Your task to perform on an android device: allow cookies in the chrome app Image 0: 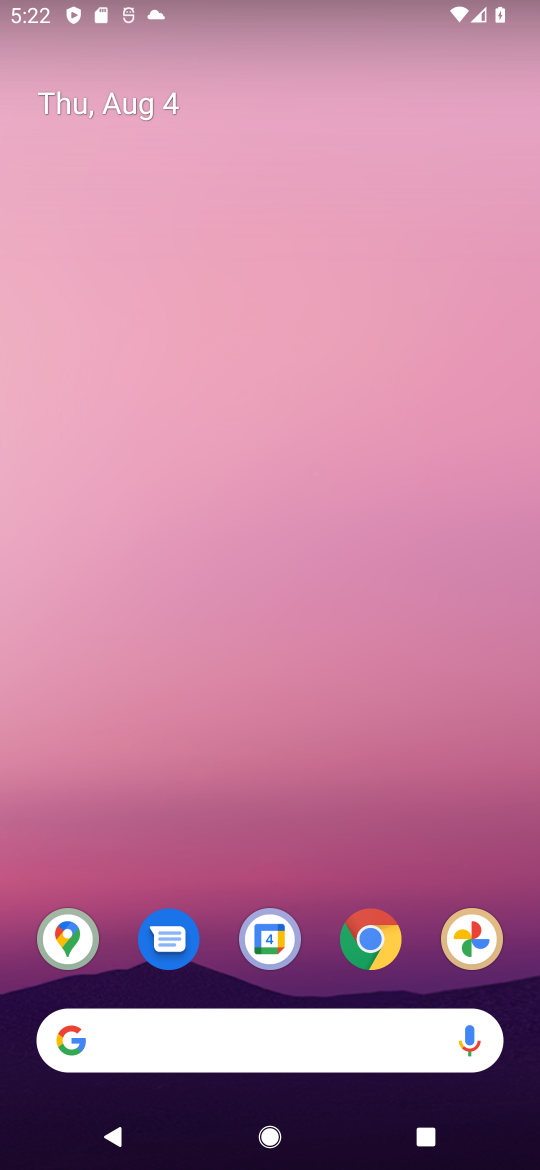
Step 0: click (370, 944)
Your task to perform on an android device: allow cookies in the chrome app Image 1: 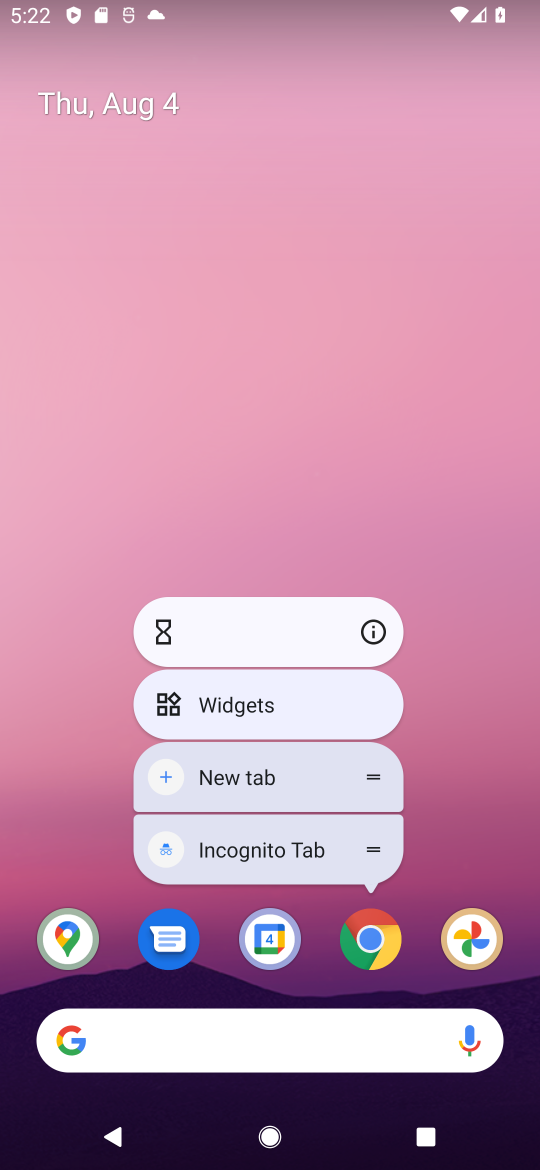
Step 1: click (370, 944)
Your task to perform on an android device: allow cookies in the chrome app Image 2: 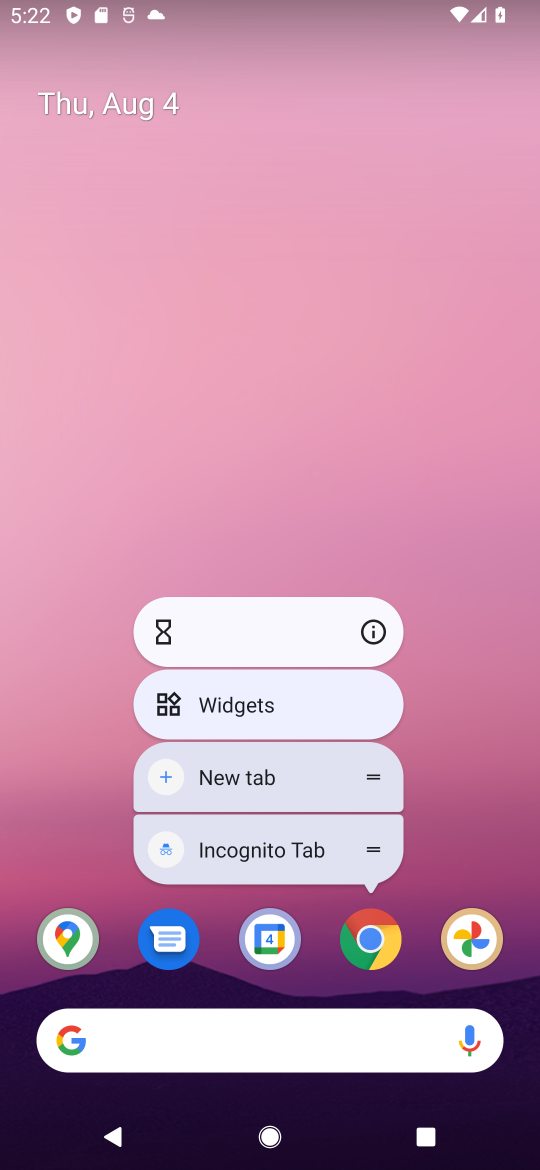
Step 2: click (379, 942)
Your task to perform on an android device: allow cookies in the chrome app Image 3: 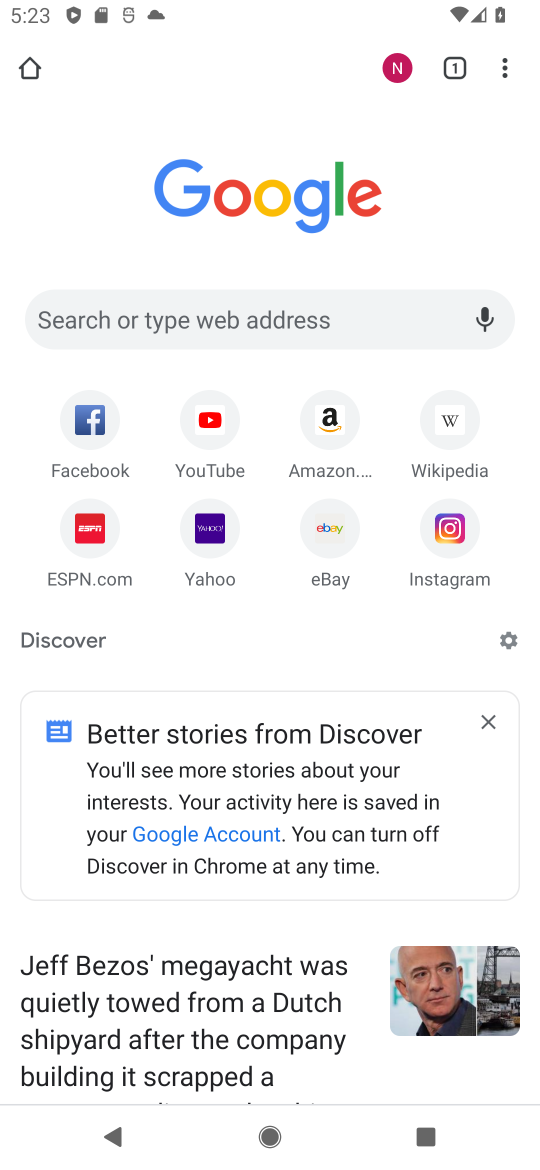
Step 3: click (506, 73)
Your task to perform on an android device: allow cookies in the chrome app Image 4: 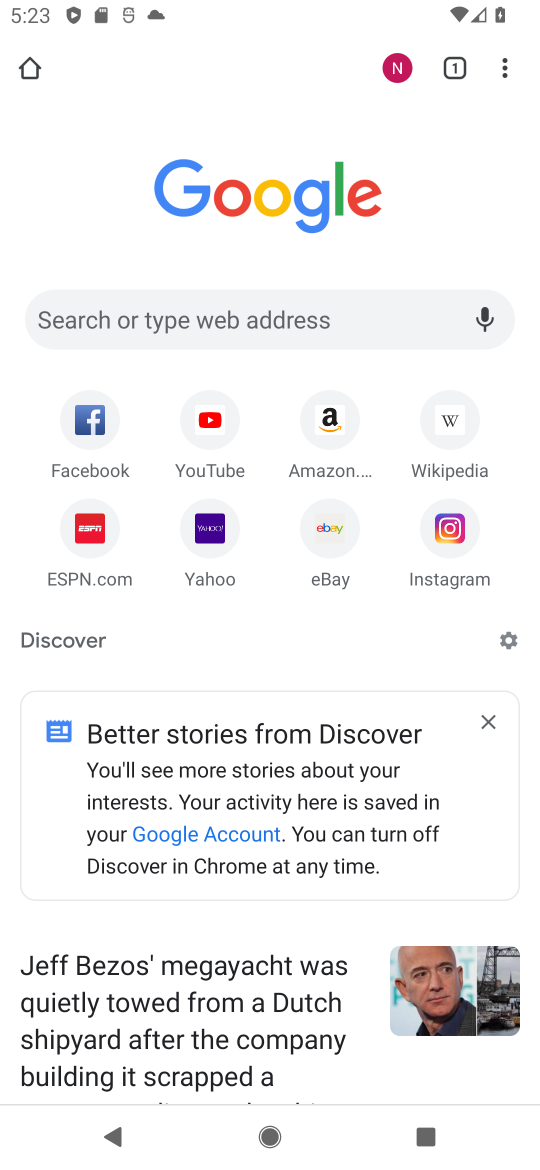
Step 4: click (499, 69)
Your task to perform on an android device: allow cookies in the chrome app Image 5: 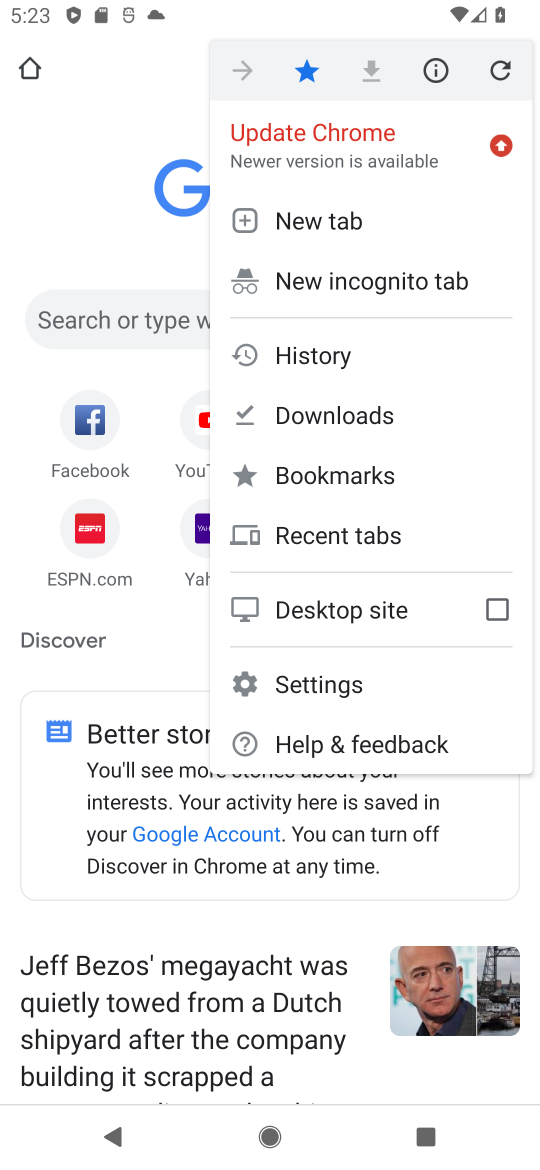
Step 5: click (331, 687)
Your task to perform on an android device: allow cookies in the chrome app Image 6: 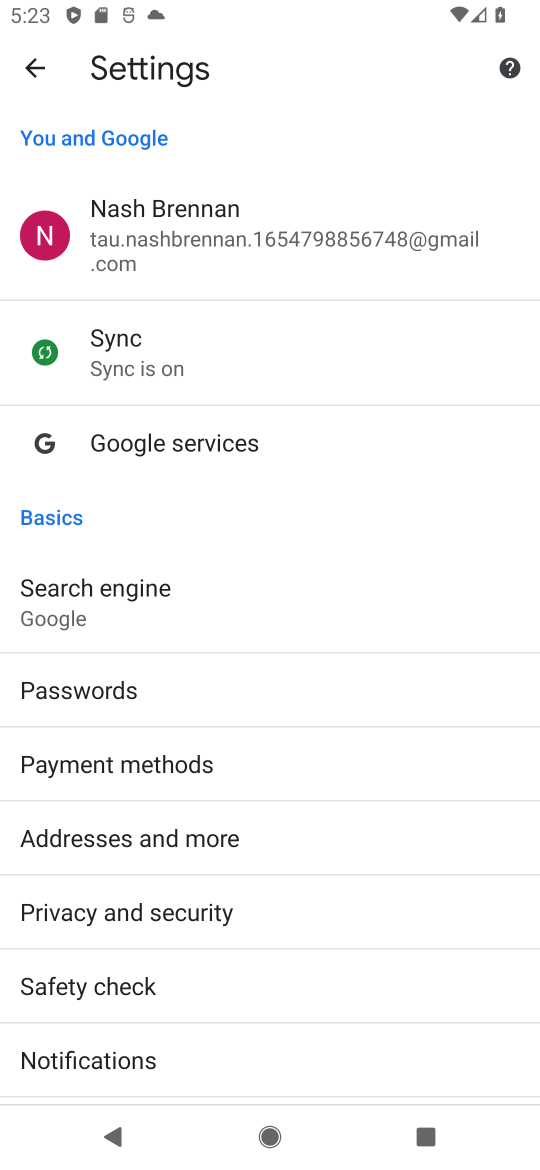
Step 6: drag from (136, 1078) to (184, 513)
Your task to perform on an android device: allow cookies in the chrome app Image 7: 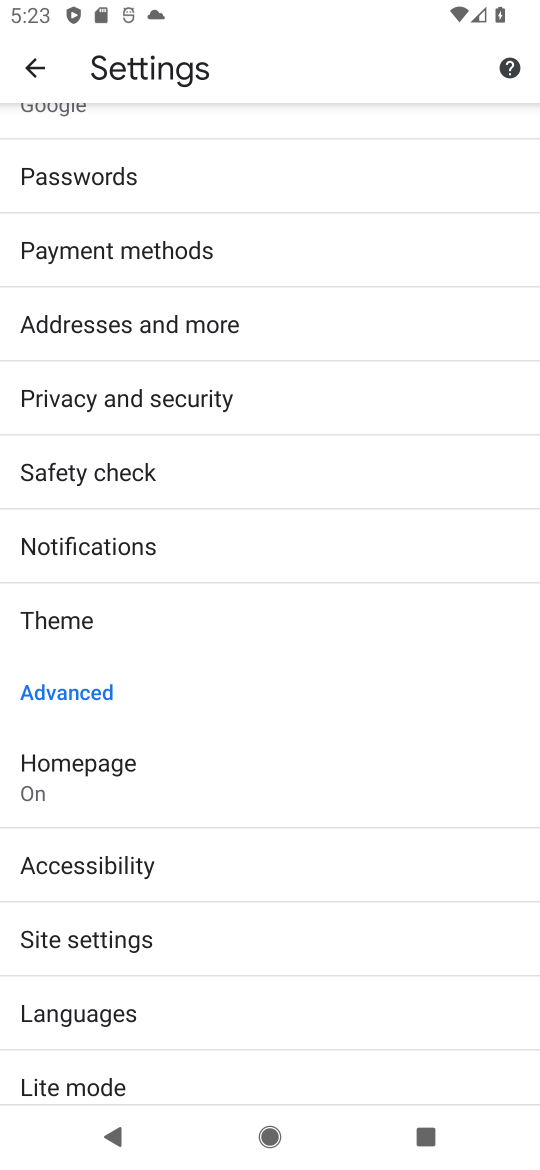
Step 7: click (86, 945)
Your task to perform on an android device: allow cookies in the chrome app Image 8: 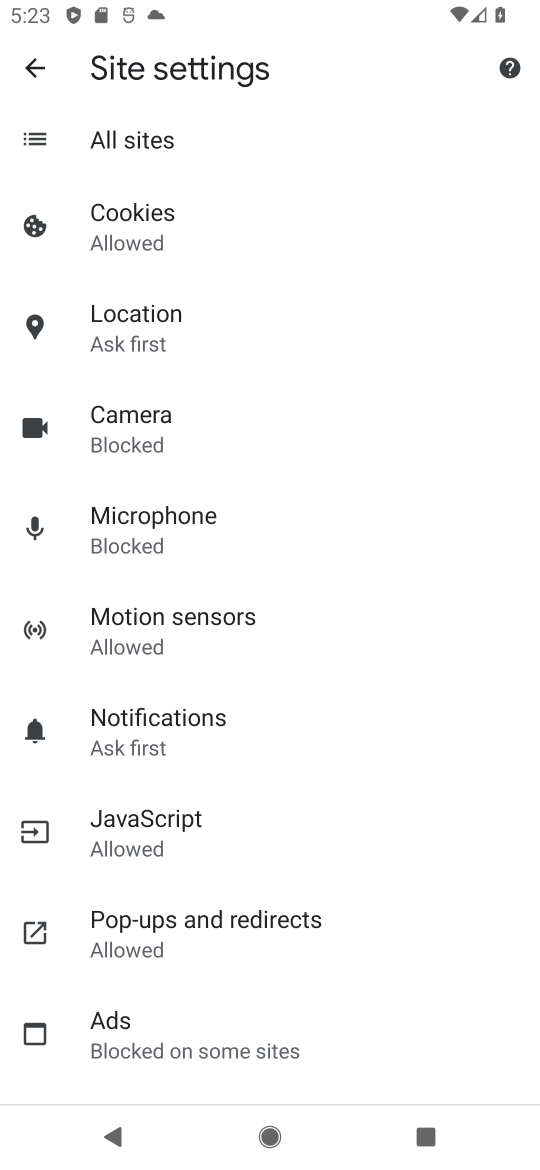
Step 8: click (157, 226)
Your task to perform on an android device: allow cookies in the chrome app Image 9: 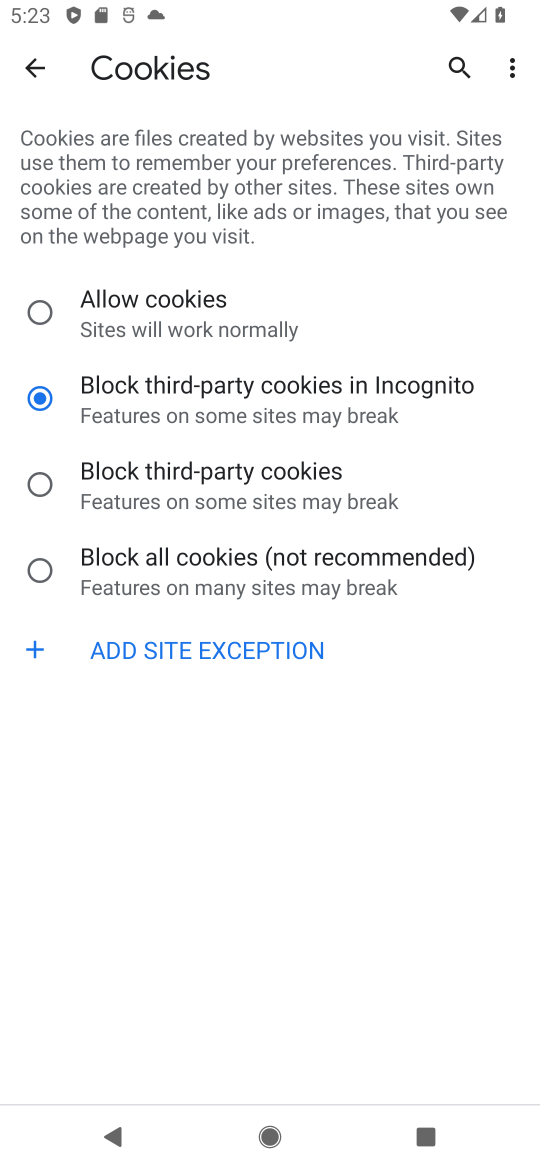
Step 9: click (130, 306)
Your task to perform on an android device: allow cookies in the chrome app Image 10: 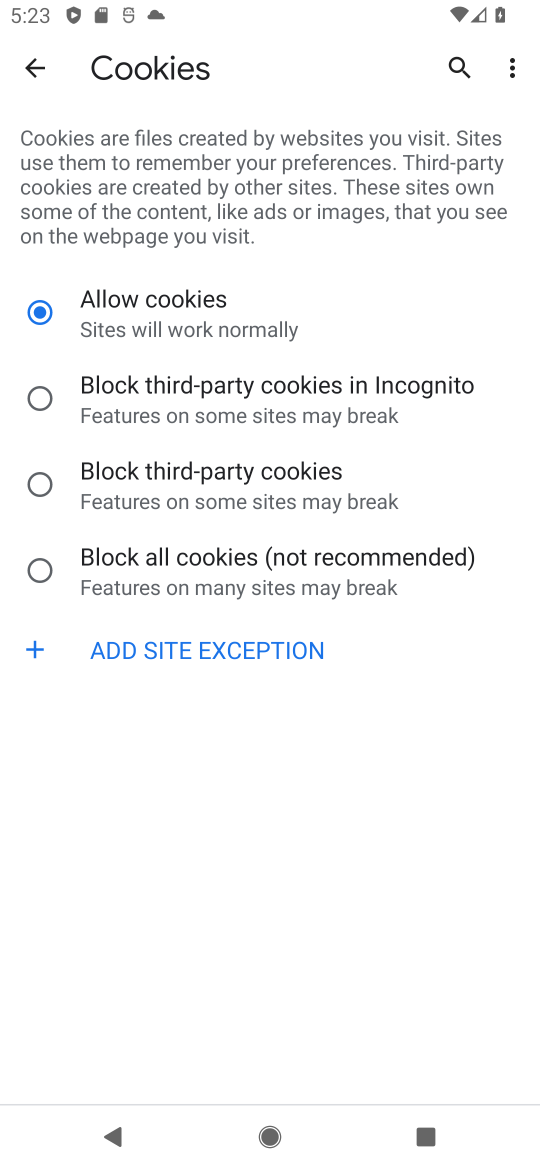
Step 10: task complete